Your task to perform on an android device: open sync settings in chrome Image 0: 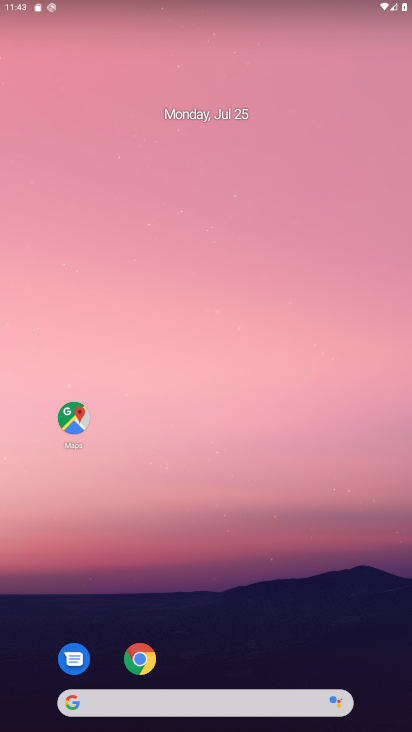
Step 0: drag from (244, 621) to (234, 137)
Your task to perform on an android device: open sync settings in chrome Image 1: 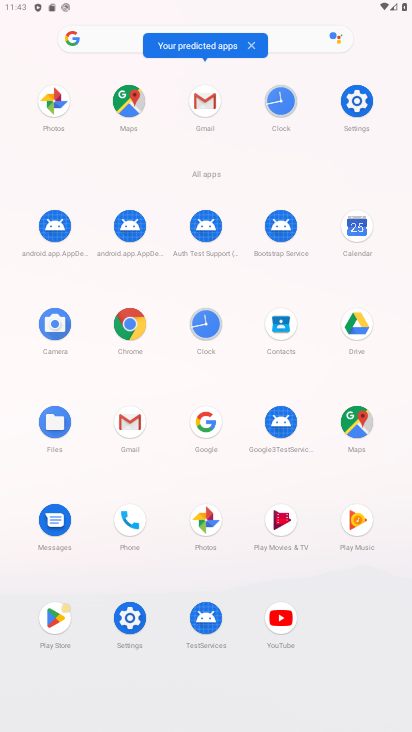
Step 1: click (133, 320)
Your task to perform on an android device: open sync settings in chrome Image 2: 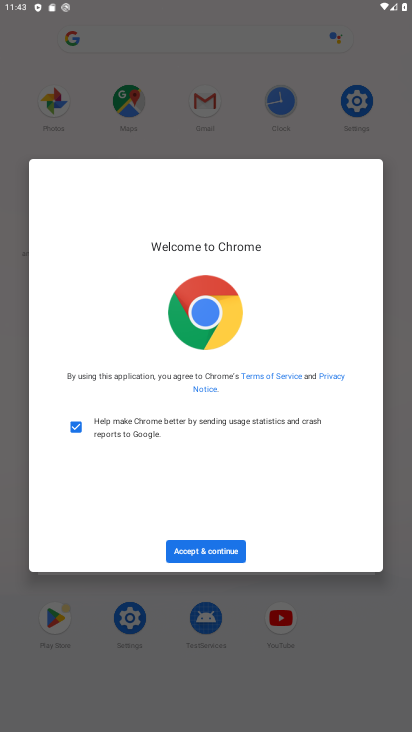
Step 2: click (184, 546)
Your task to perform on an android device: open sync settings in chrome Image 3: 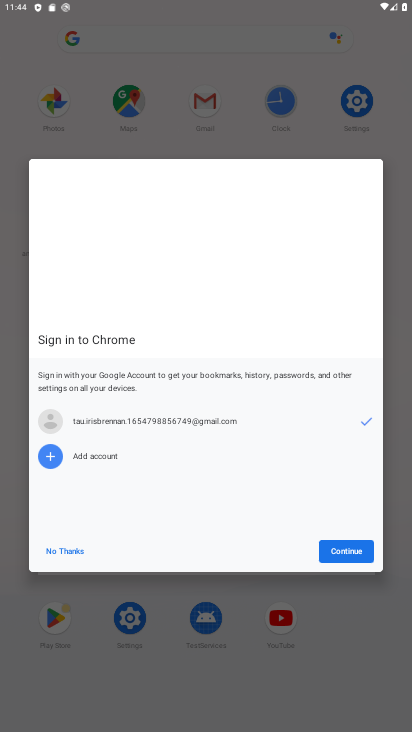
Step 3: click (329, 543)
Your task to perform on an android device: open sync settings in chrome Image 4: 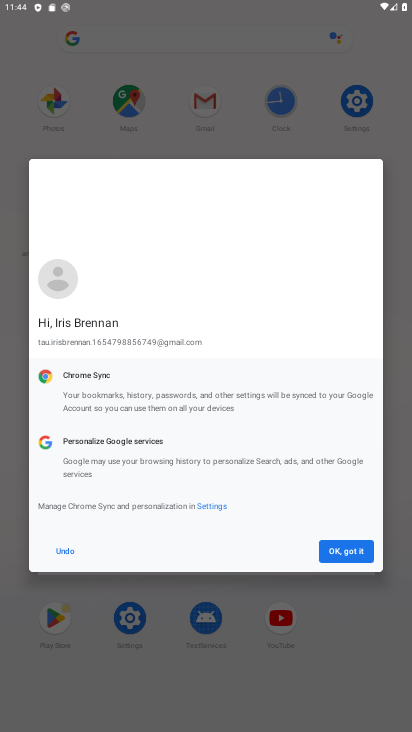
Step 4: click (330, 543)
Your task to perform on an android device: open sync settings in chrome Image 5: 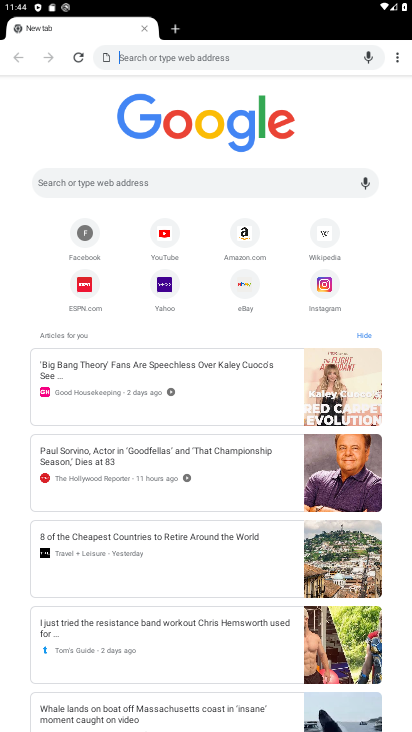
Step 5: drag from (396, 53) to (288, 263)
Your task to perform on an android device: open sync settings in chrome Image 6: 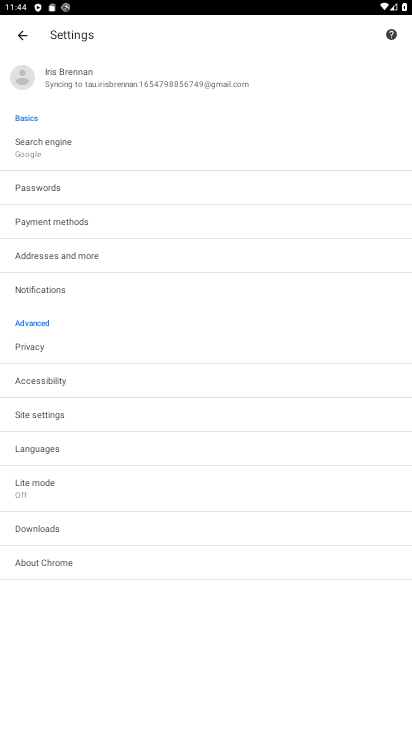
Step 6: click (73, 88)
Your task to perform on an android device: open sync settings in chrome Image 7: 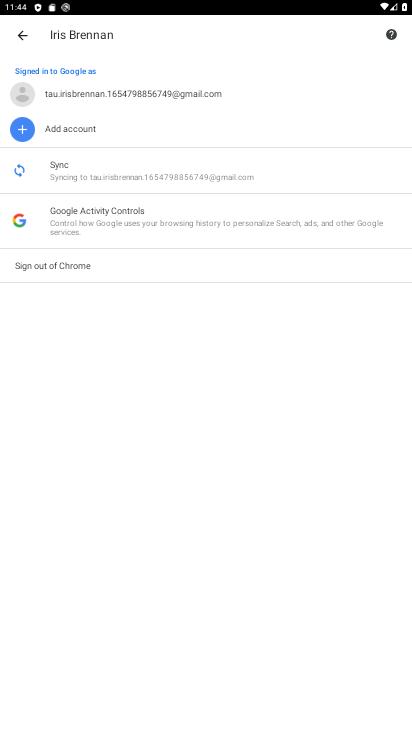
Step 7: click (95, 181)
Your task to perform on an android device: open sync settings in chrome Image 8: 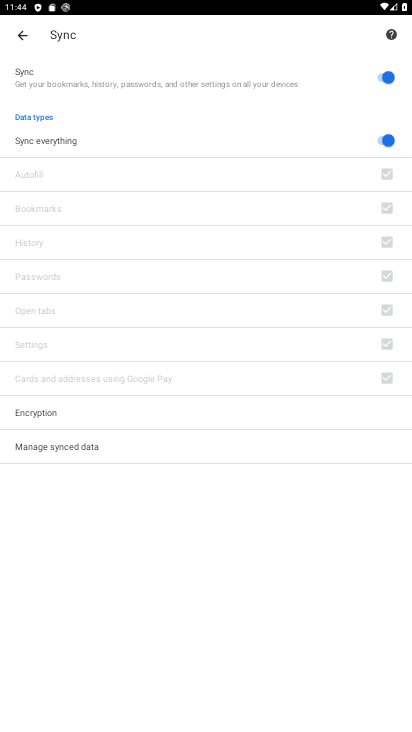
Step 8: task complete